Your task to perform on an android device: Open settings on Google Maps Image 0: 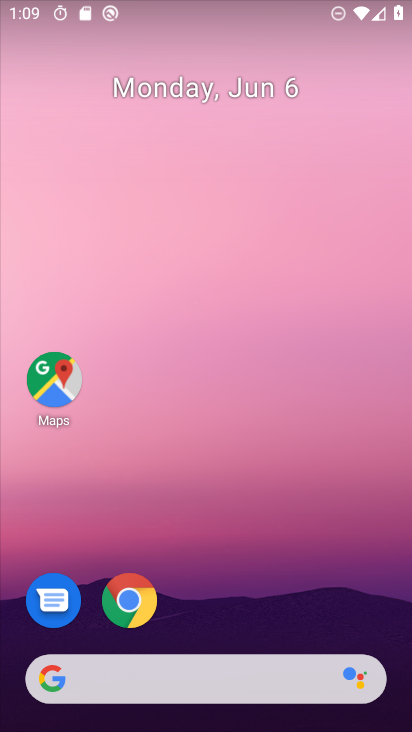
Step 0: click (40, 366)
Your task to perform on an android device: Open settings on Google Maps Image 1: 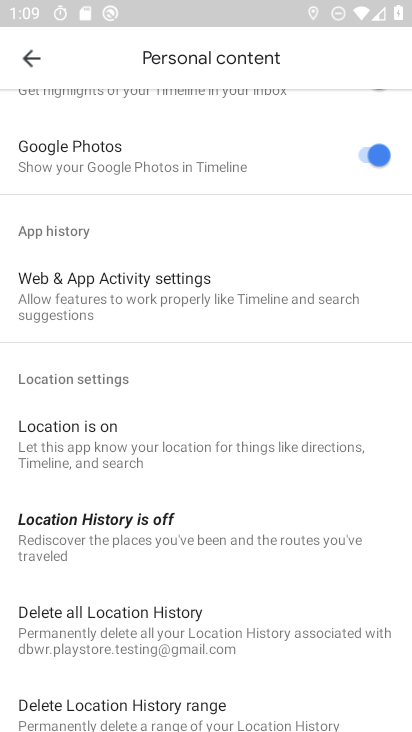
Step 1: drag from (280, 626) to (277, 324)
Your task to perform on an android device: Open settings on Google Maps Image 2: 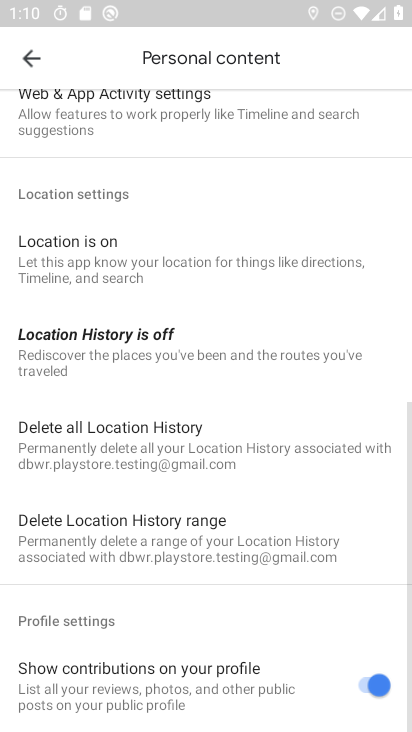
Step 2: drag from (229, 244) to (229, 542)
Your task to perform on an android device: Open settings on Google Maps Image 3: 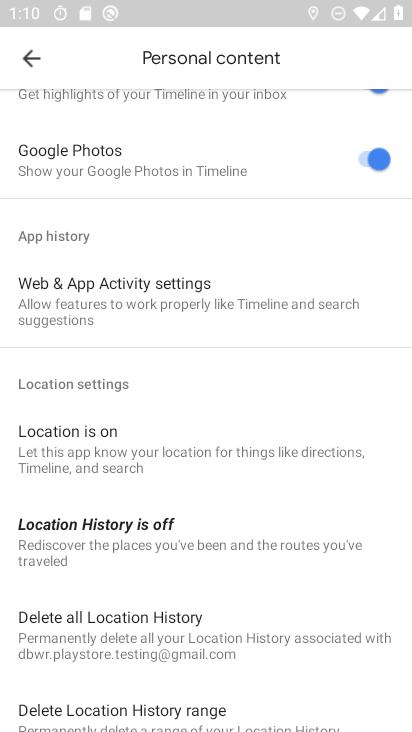
Step 3: drag from (253, 227) to (278, 535)
Your task to perform on an android device: Open settings on Google Maps Image 4: 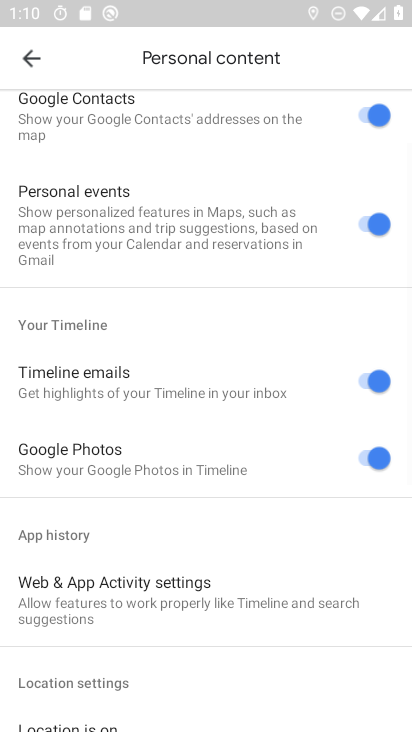
Step 4: drag from (224, 227) to (252, 606)
Your task to perform on an android device: Open settings on Google Maps Image 5: 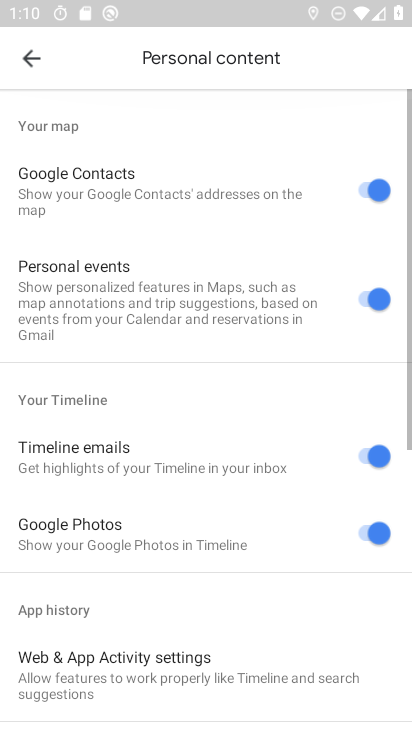
Step 5: drag from (211, 252) to (211, 574)
Your task to perform on an android device: Open settings on Google Maps Image 6: 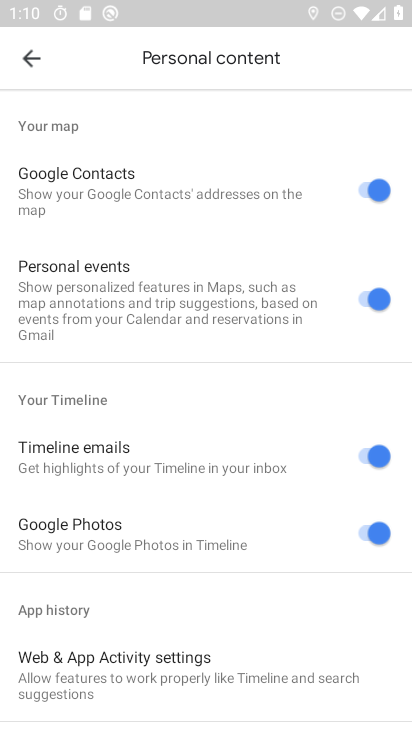
Step 6: press home button
Your task to perform on an android device: Open settings on Google Maps Image 7: 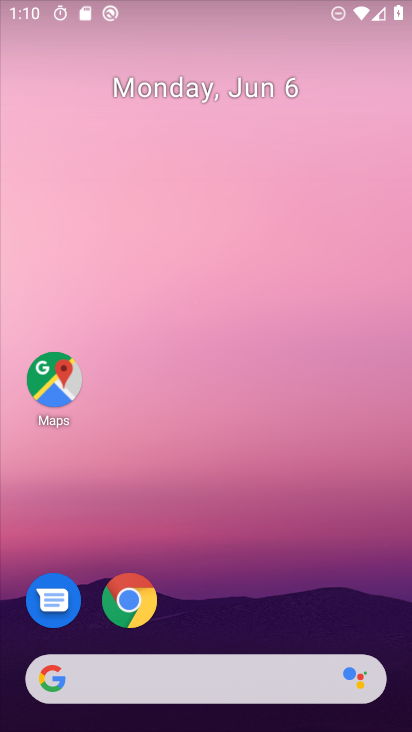
Step 7: click (40, 416)
Your task to perform on an android device: Open settings on Google Maps Image 8: 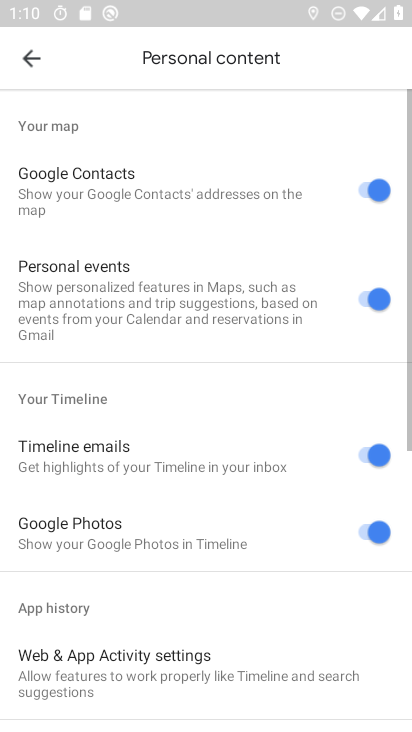
Step 8: task complete